Your task to perform on an android device: read, delete, or share a saved page in the chrome app Image 0: 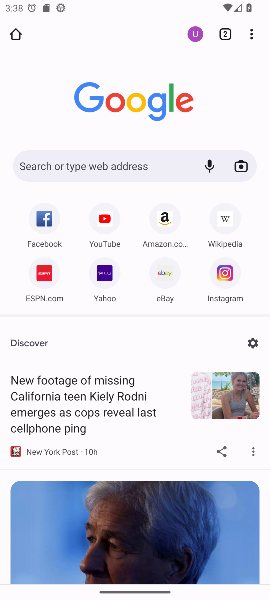
Step 0: click (260, 40)
Your task to perform on an android device: read, delete, or share a saved page in the chrome app Image 1: 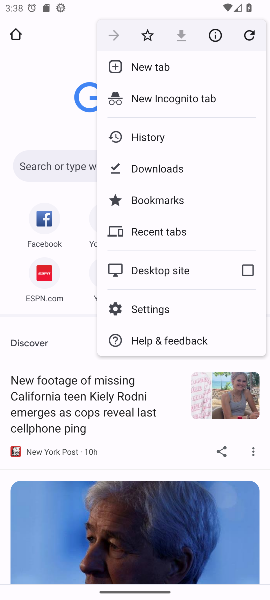
Step 1: click (151, 153)
Your task to perform on an android device: read, delete, or share a saved page in the chrome app Image 2: 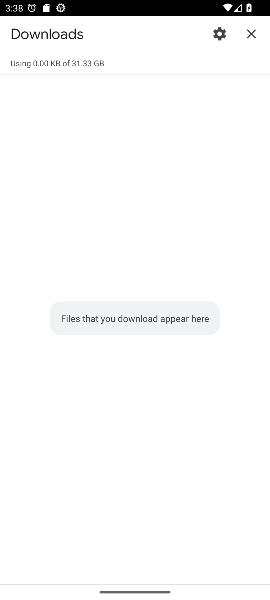
Step 2: task complete